Your task to perform on an android device: Do I have any events tomorrow? Image 0: 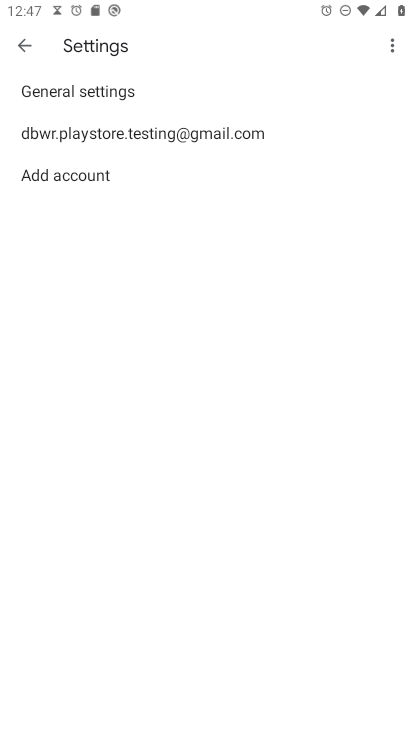
Step 0: press home button
Your task to perform on an android device: Do I have any events tomorrow? Image 1: 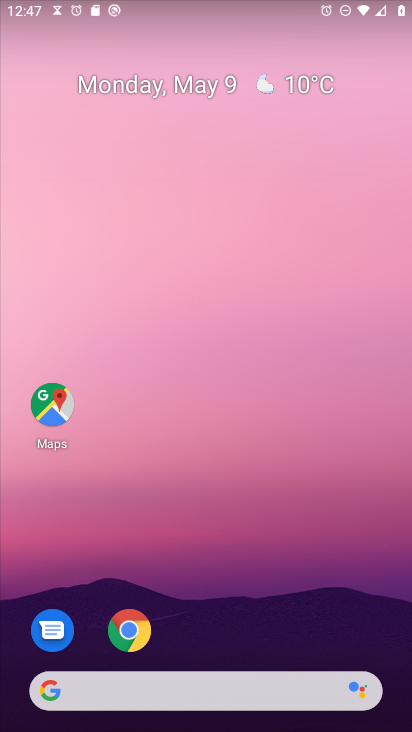
Step 1: drag from (181, 696) to (385, 138)
Your task to perform on an android device: Do I have any events tomorrow? Image 2: 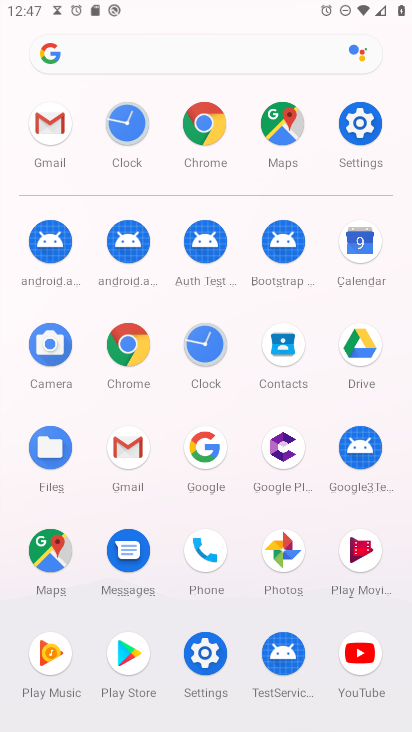
Step 2: click (364, 253)
Your task to perform on an android device: Do I have any events tomorrow? Image 3: 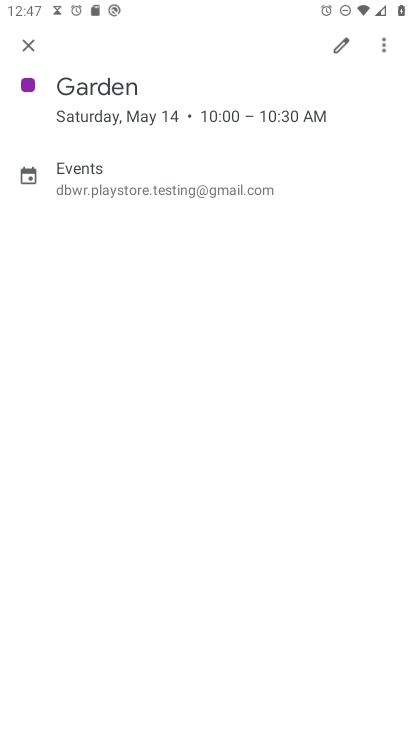
Step 3: click (27, 41)
Your task to perform on an android device: Do I have any events tomorrow? Image 4: 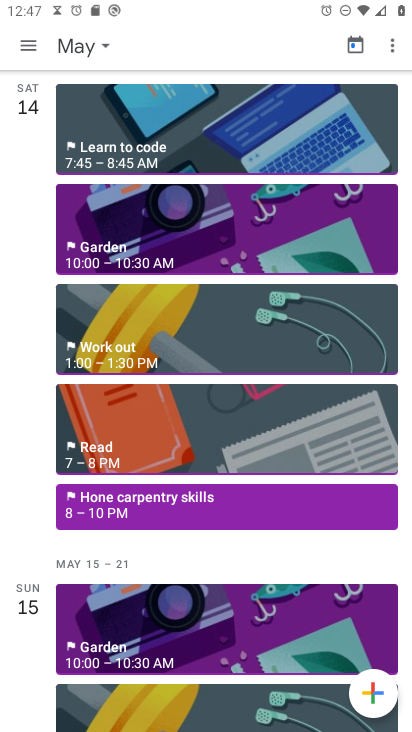
Step 4: click (99, 39)
Your task to perform on an android device: Do I have any events tomorrow? Image 5: 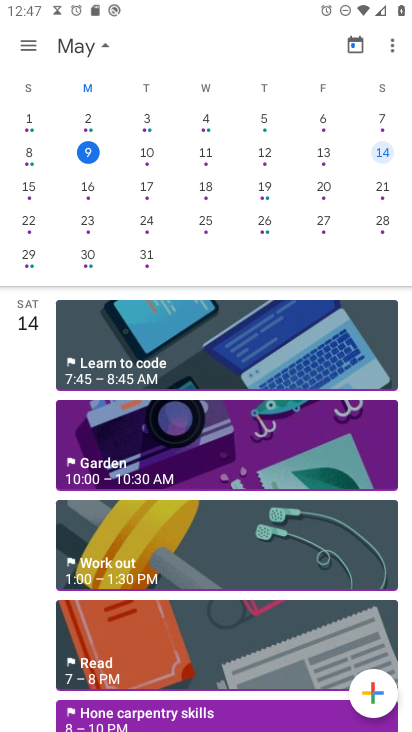
Step 5: click (142, 154)
Your task to perform on an android device: Do I have any events tomorrow? Image 6: 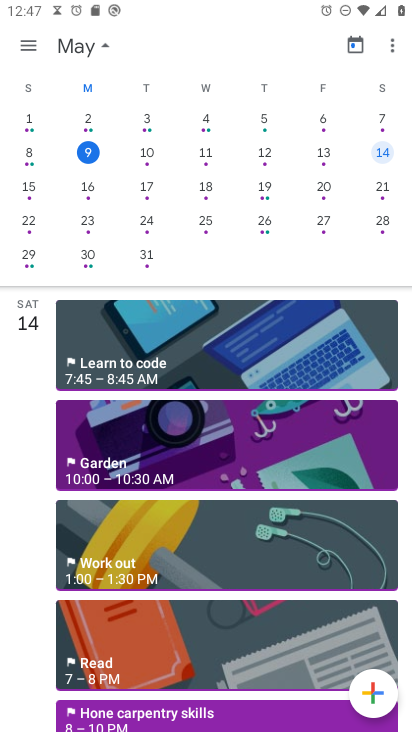
Step 6: click (147, 151)
Your task to perform on an android device: Do I have any events tomorrow? Image 7: 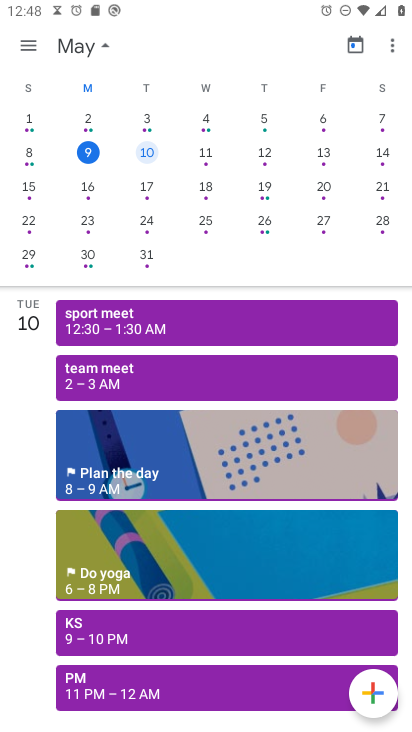
Step 7: click (25, 50)
Your task to perform on an android device: Do I have any events tomorrow? Image 8: 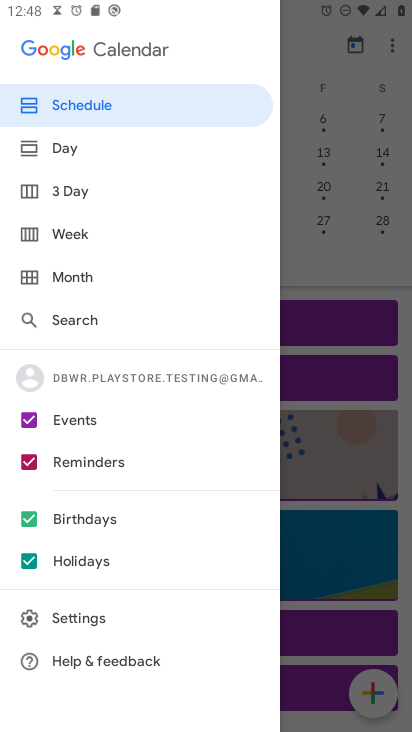
Step 8: click (110, 107)
Your task to perform on an android device: Do I have any events tomorrow? Image 9: 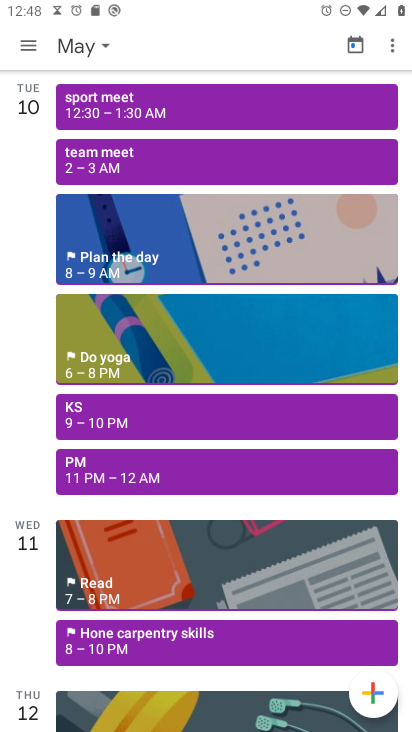
Step 9: click (159, 162)
Your task to perform on an android device: Do I have any events tomorrow? Image 10: 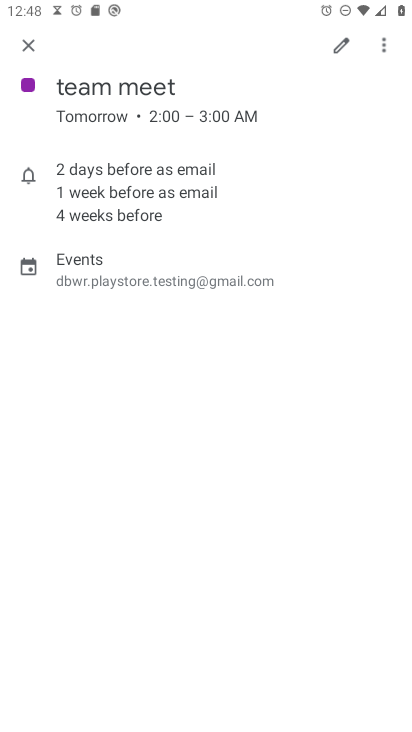
Step 10: task complete